Your task to perform on an android device: toggle translation in the chrome app Image 0: 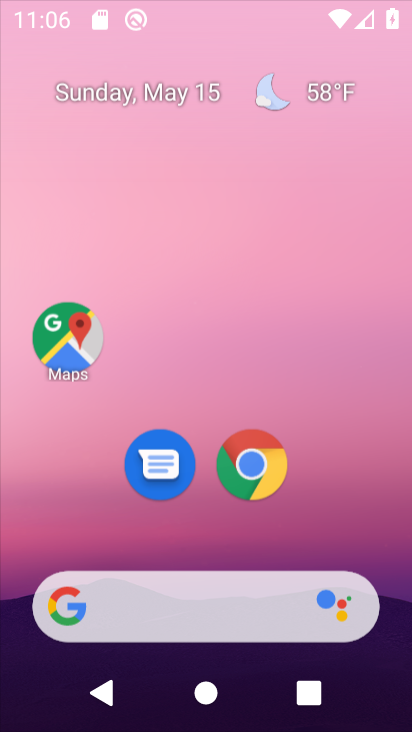
Step 0: drag from (210, 522) to (270, 64)
Your task to perform on an android device: toggle translation in the chrome app Image 1: 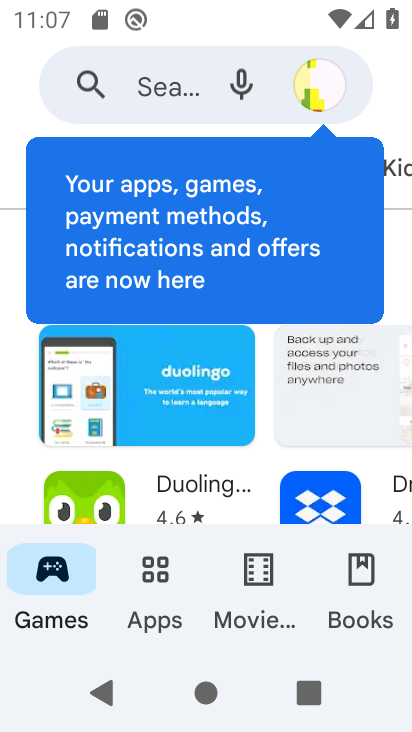
Step 1: press home button
Your task to perform on an android device: toggle translation in the chrome app Image 2: 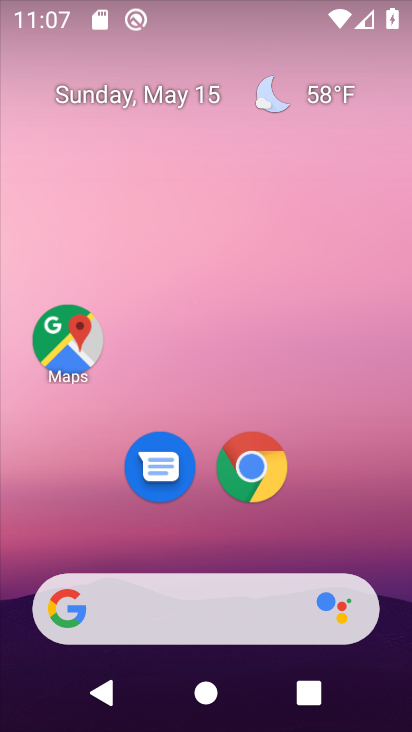
Step 2: click (248, 456)
Your task to perform on an android device: toggle translation in the chrome app Image 3: 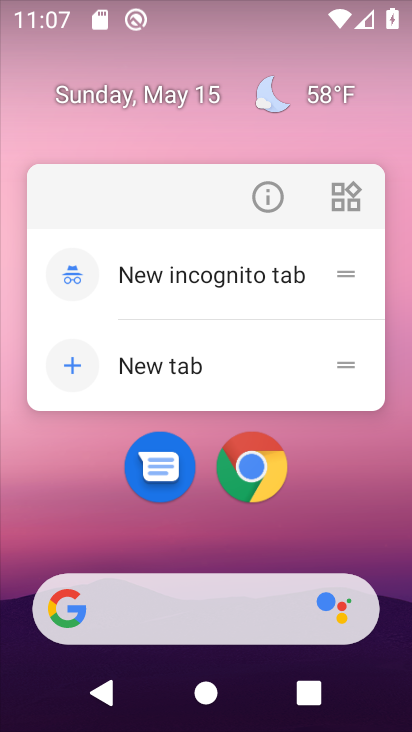
Step 3: click (249, 455)
Your task to perform on an android device: toggle translation in the chrome app Image 4: 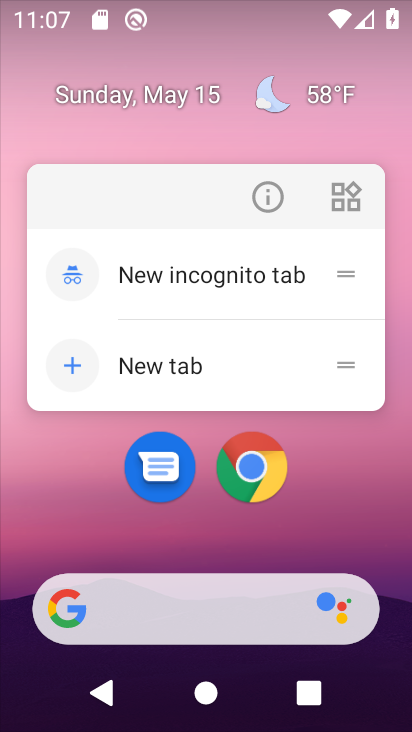
Step 4: click (255, 456)
Your task to perform on an android device: toggle translation in the chrome app Image 5: 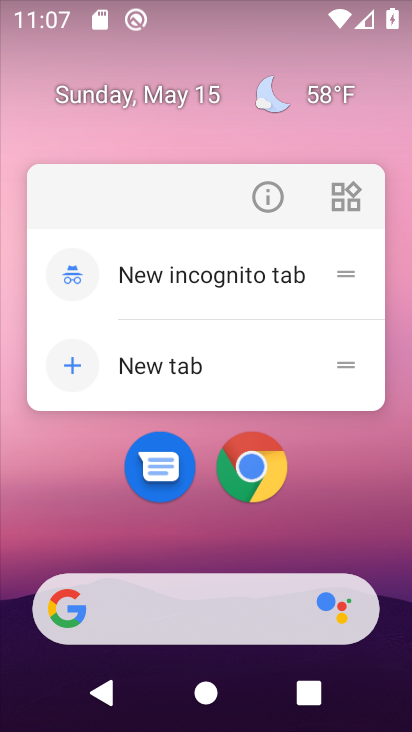
Step 5: click (241, 460)
Your task to perform on an android device: toggle translation in the chrome app Image 6: 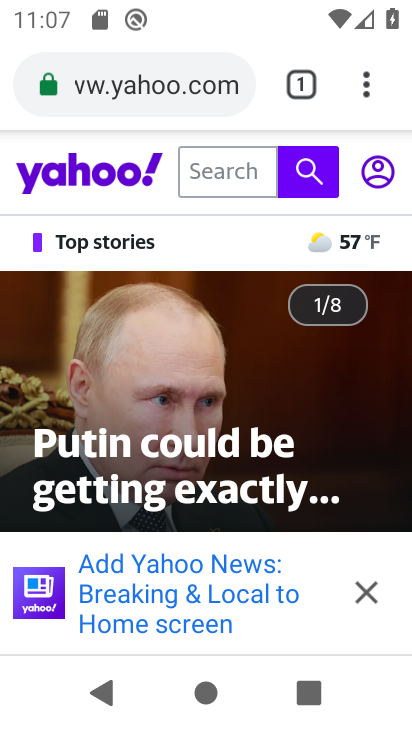
Step 6: click (358, 86)
Your task to perform on an android device: toggle translation in the chrome app Image 7: 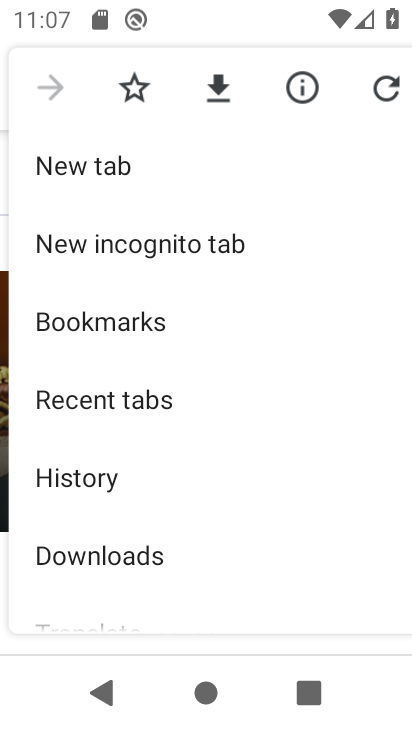
Step 7: drag from (168, 555) to (250, 24)
Your task to perform on an android device: toggle translation in the chrome app Image 8: 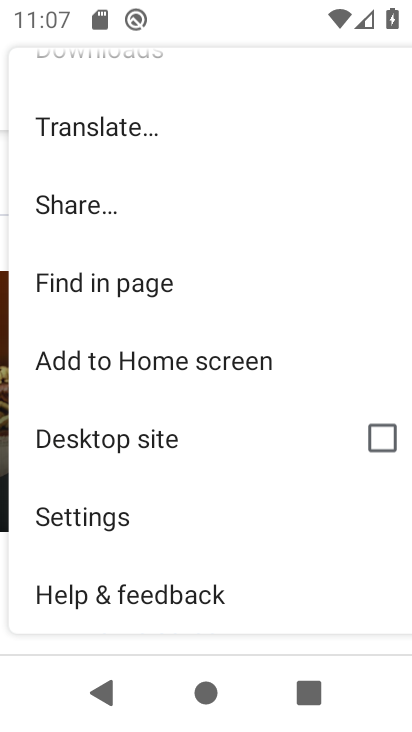
Step 8: click (143, 510)
Your task to perform on an android device: toggle translation in the chrome app Image 9: 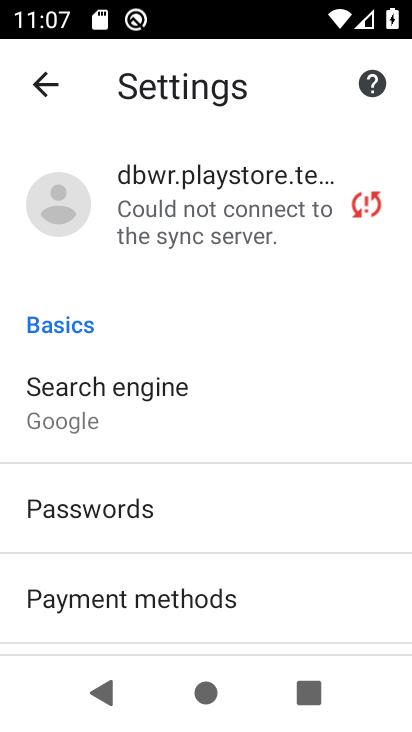
Step 9: drag from (250, 591) to (287, 135)
Your task to perform on an android device: toggle translation in the chrome app Image 10: 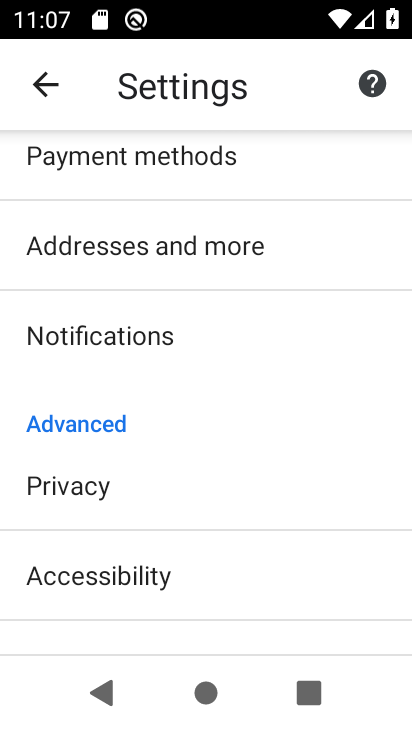
Step 10: drag from (231, 596) to (270, 147)
Your task to perform on an android device: toggle translation in the chrome app Image 11: 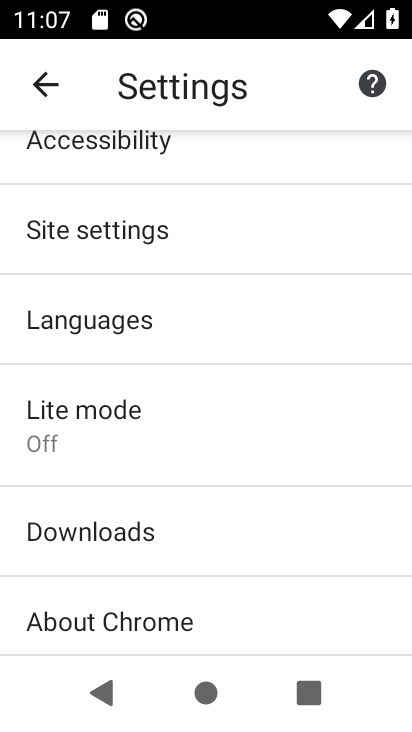
Step 11: click (179, 320)
Your task to perform on an android device: toggle translation in the chrome app Image 12: 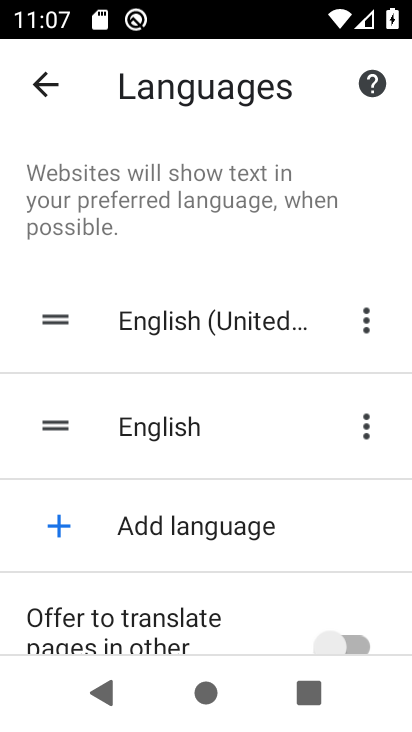
Step 12: click (340, 623)
Your task to perform on an android device: toggle translation in the chrome app Image 13: 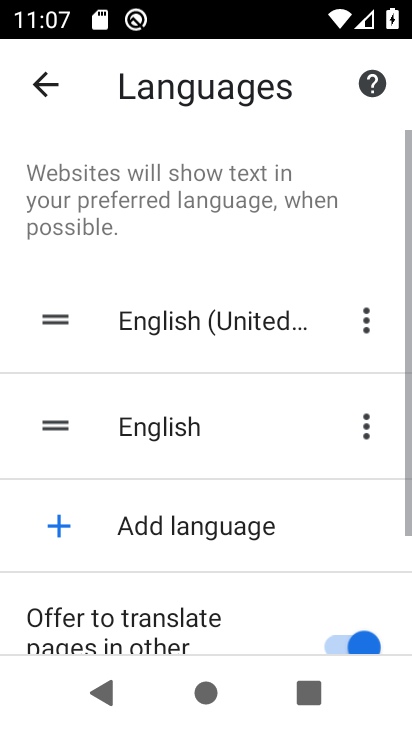
Step 13: task complete